Your task to perform on an android device: turn on sleep mode Image 0: 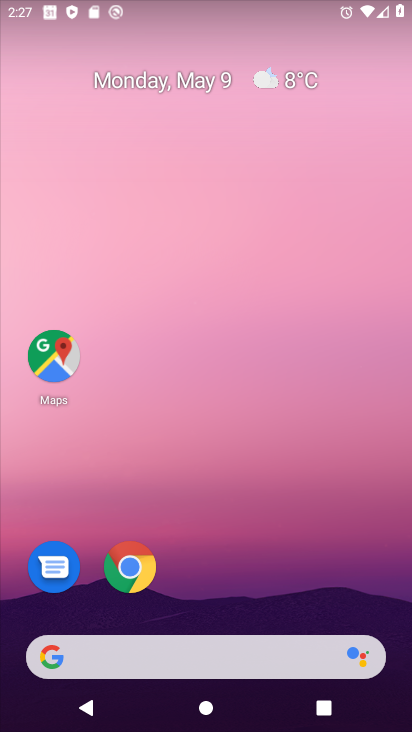
Step 0: drag from (265, 545) to (279, 277)
Your task to perform on an android device: turn on sleep mode Image 1: 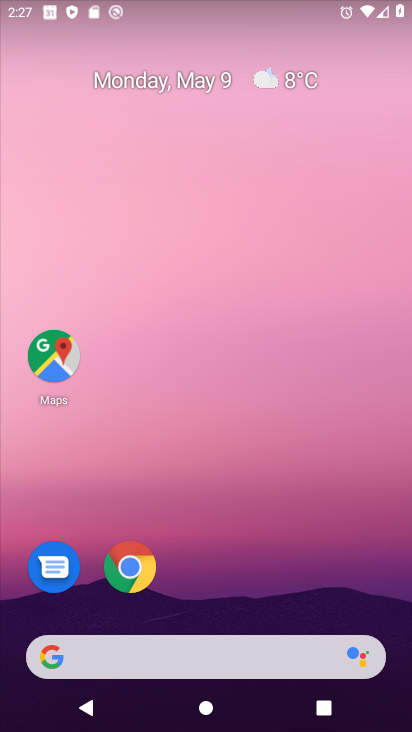
Step 1: drag from (269, 584) to (314, 225)
Your task to perform on an android device: turn on sleep mode Image 2: 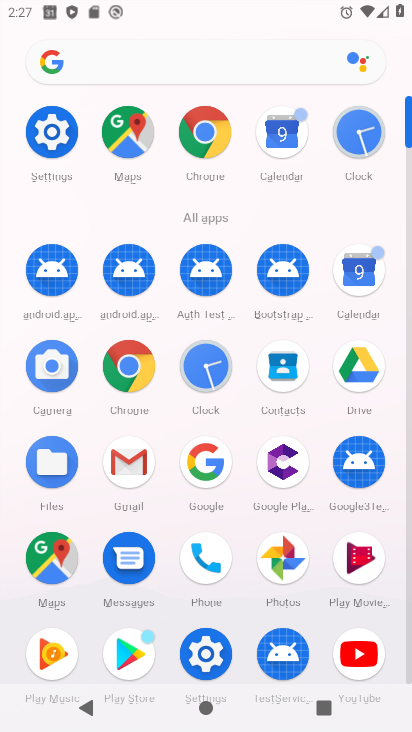
Step 2: click (36, 118)
Your task to perform on an android device: turn on sleep mode Image 3: 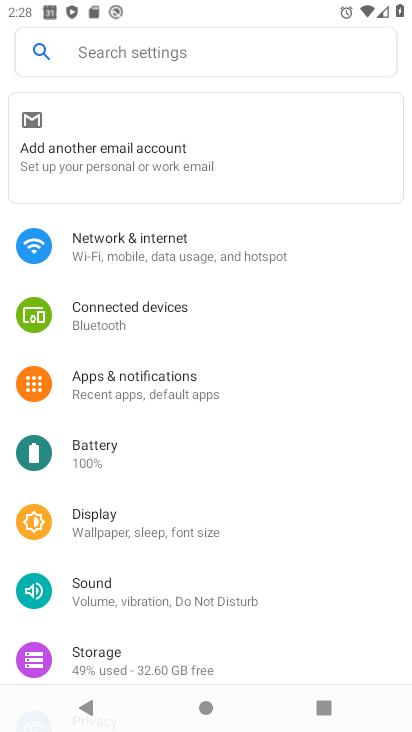
Step 3: task complete